Your task to perform on an android device: Find coffee shops on Maps Image 0: 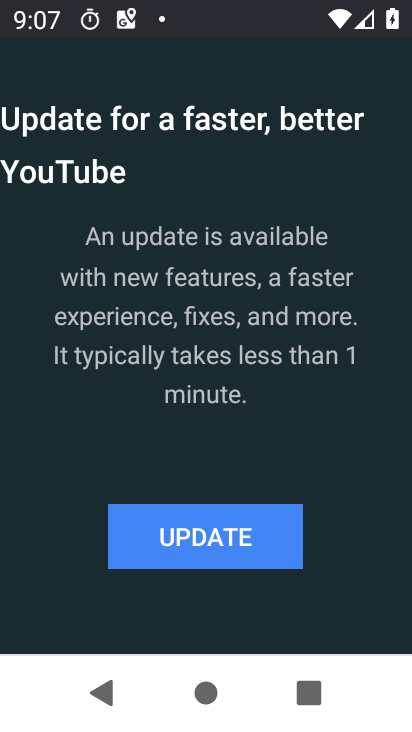
Step 0: press home button
Your task to perform on an android device: Find coffee shops on Maps Image 1: 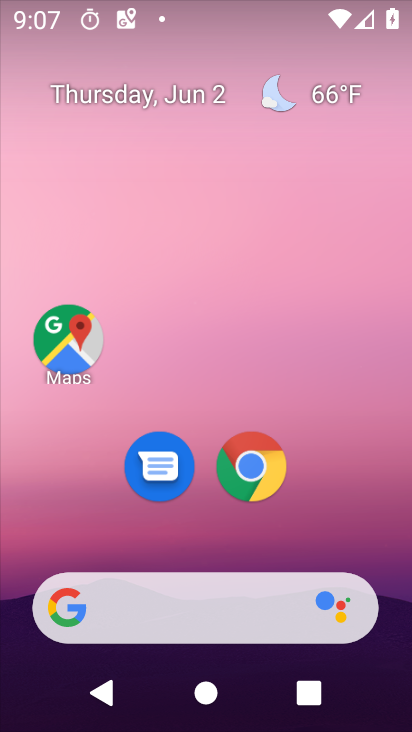
Step 1: click (43, 344)
Your task to perform on an android device: Find coffee shops on Maps Image 2: 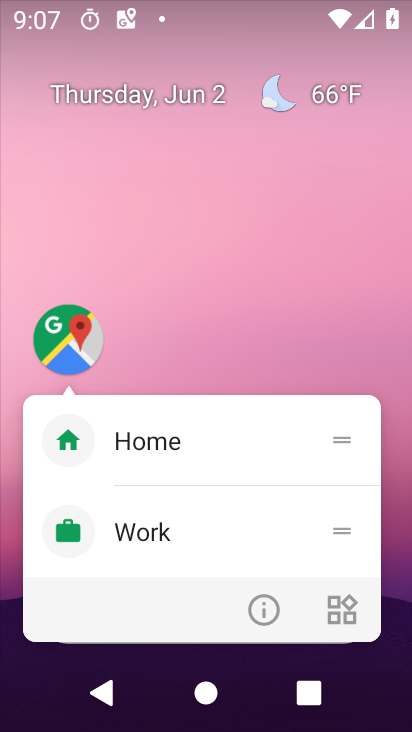
Step 2: click (62, 329)
Your task to perform on an android device: Find coffee shops on Maps Image 3: 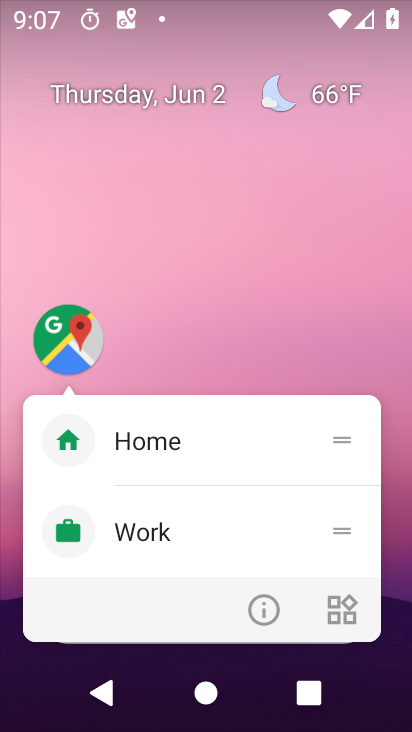
Step 3: click (62, 329)
Your task to perform on an android device: Find coffee shops on Maps Image 4: 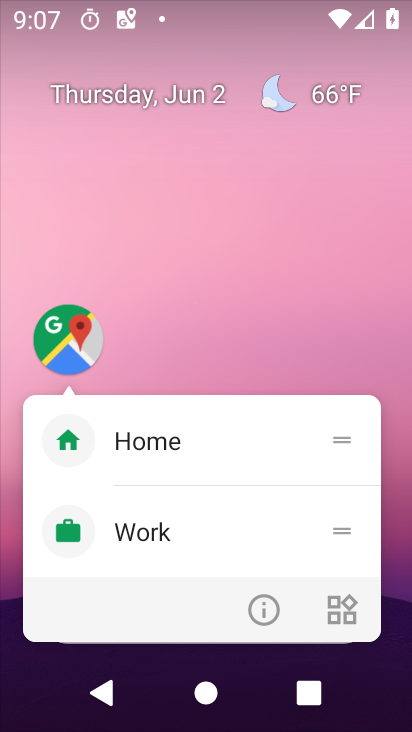
Step 4: click (64, 329)
Your task to perform on an android device: Find coffee shops on Maps Image 5: 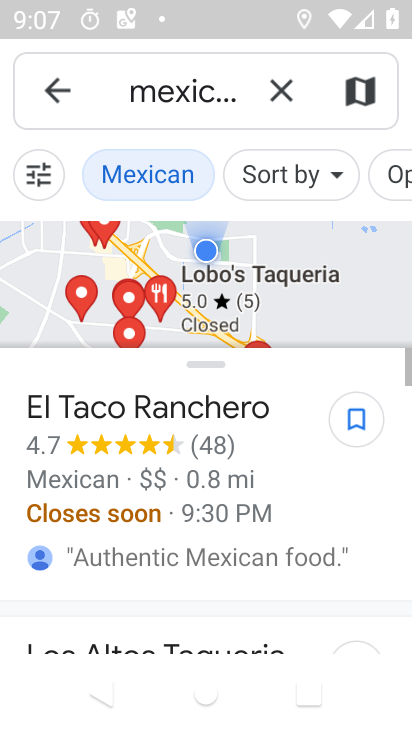
Step 5: click (277, 91)
Your task to perform on an android device: Find coffee shops on Maps Image 6: 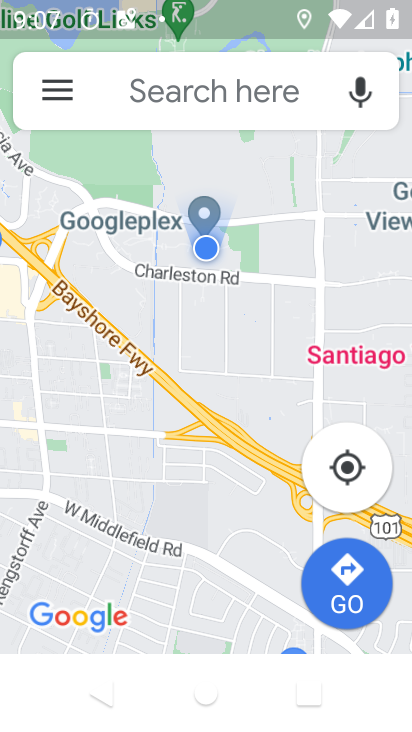
Step 6: click (173, 88)
Your task to perform on an android device: Find coffee shops on Maps Image 7: 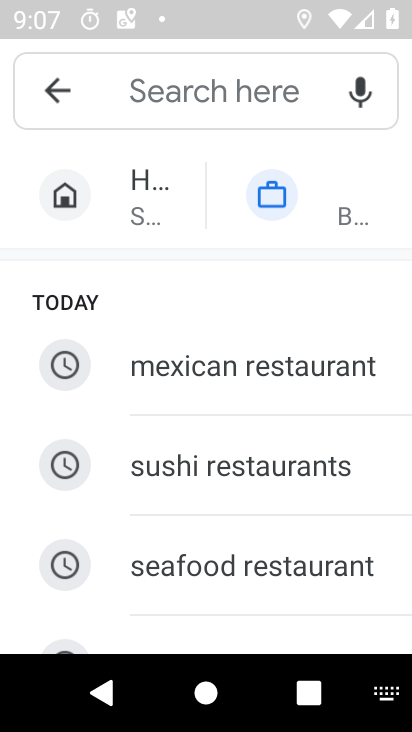
Step 7: drag from (13, 523) to (212, 205)
Your task to perform on an android device: Find coffee shops on Maps Image 8: 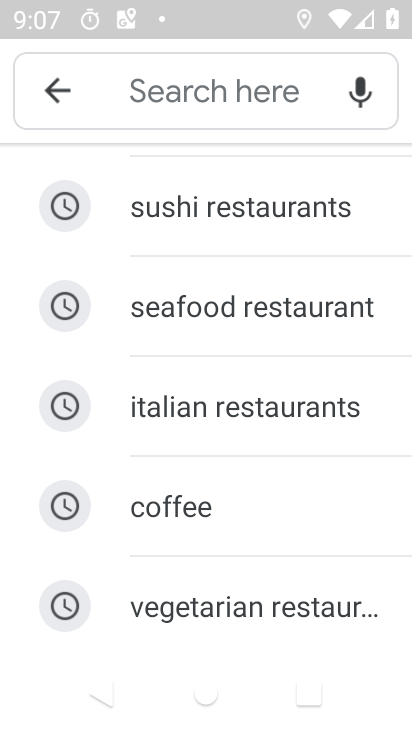
Step 8: click (167, 498)
Your task to perform on an android device: Find coffee shops on Maps Image 9: 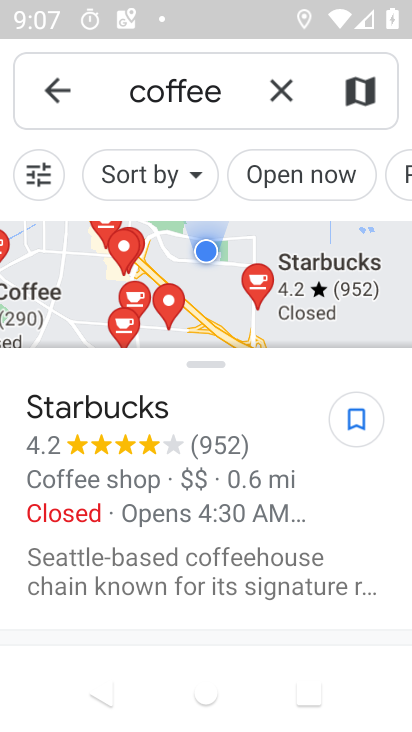
Step 9: task complete